Your task to perform on an android device: Open Amazon Image 0: 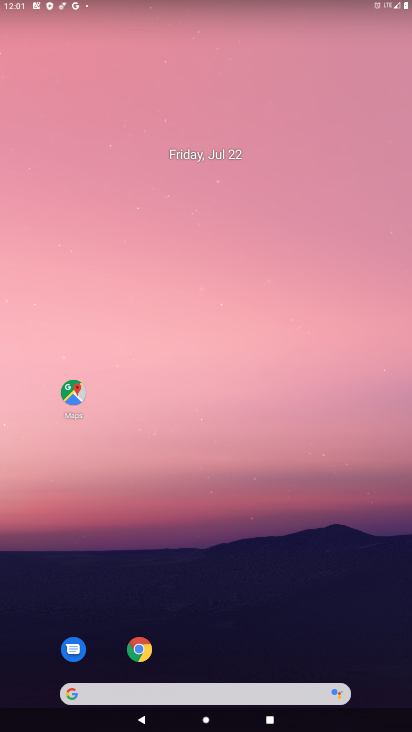
Step 0: click (330, 479)
Your task to perform on an android device: Open Amazon Image 1: 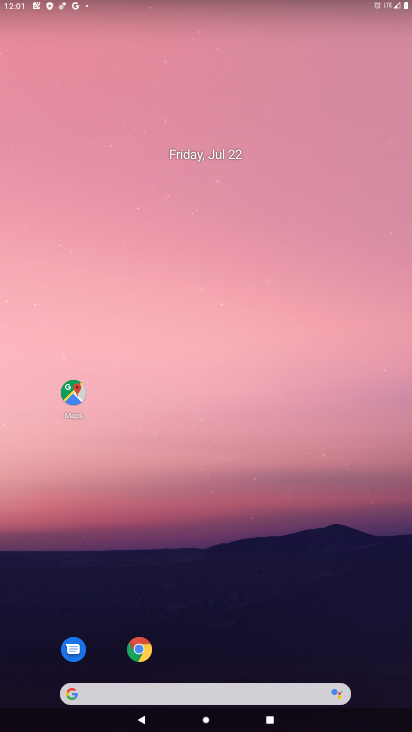
Step 1: drag from (359, 633) to (366, 105)
Your task to perform on an android device: Open Amazon Image 2: 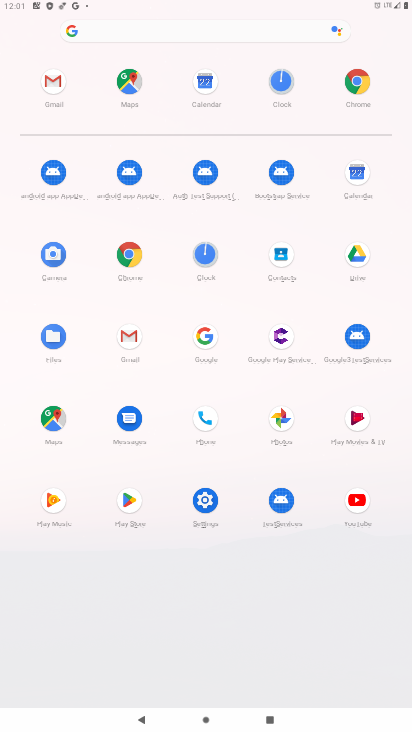
Step 2: click (355, 77)
Your task to perform on an android device: Open Amazon Image 3: 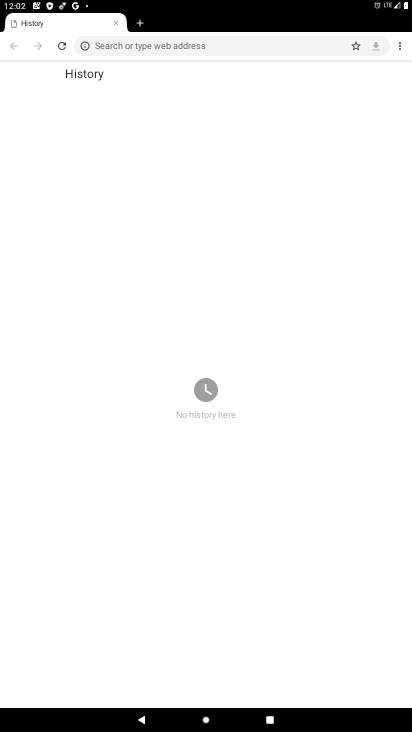
Step 3: click (265, 46)
Your task to perform on an android device: Open Amazon Image 4: 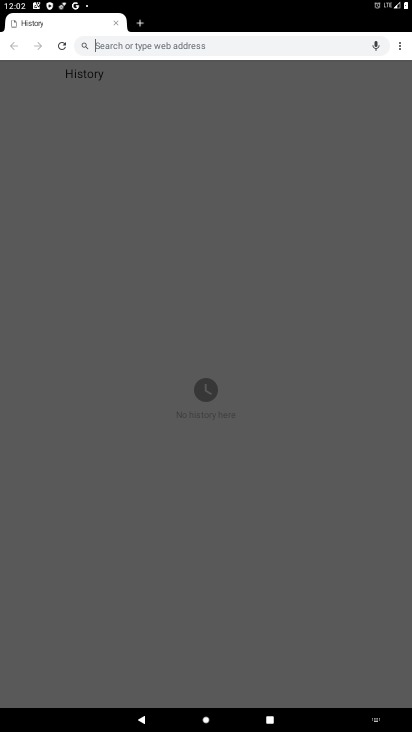
Step 4: type "amazon"
Your task to perform on an android device: Open Amazon Image 5: 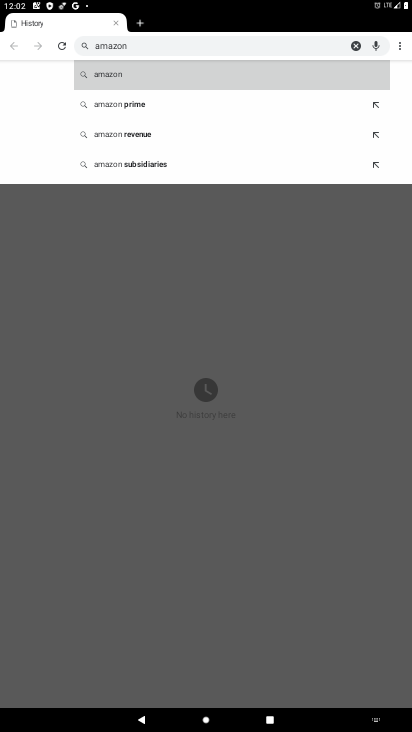
Step 5: click (114, 69)
Your task to perform on an android device: Open Amazon Image 6: 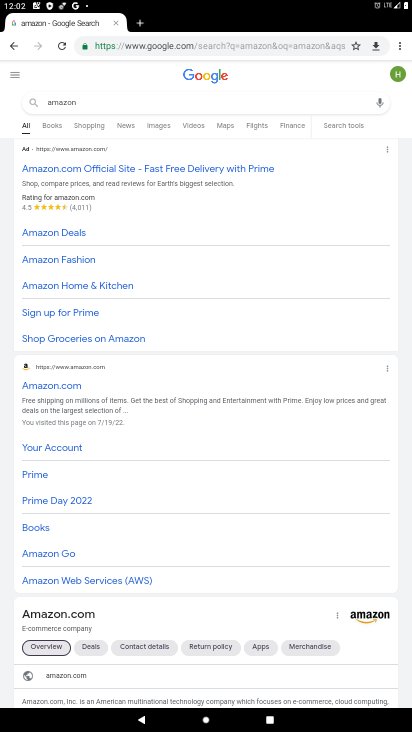
Step 6: click (63, 390)
Your task to perform on an android device: Open Amazon Image 7: 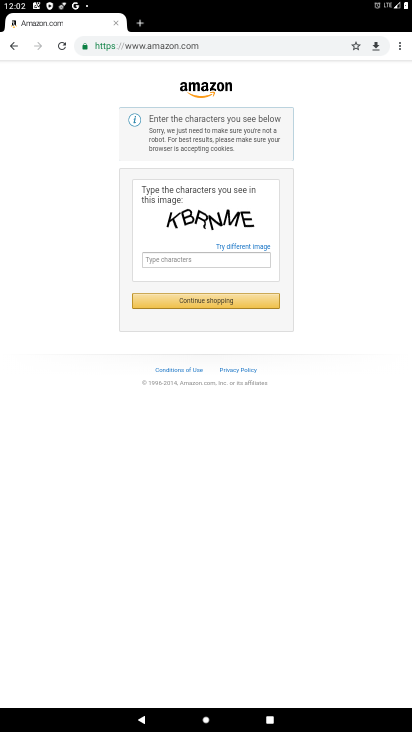
Step 7: task complete